Your task to perform on an android device: delete a single message in the gmail app Image 0: 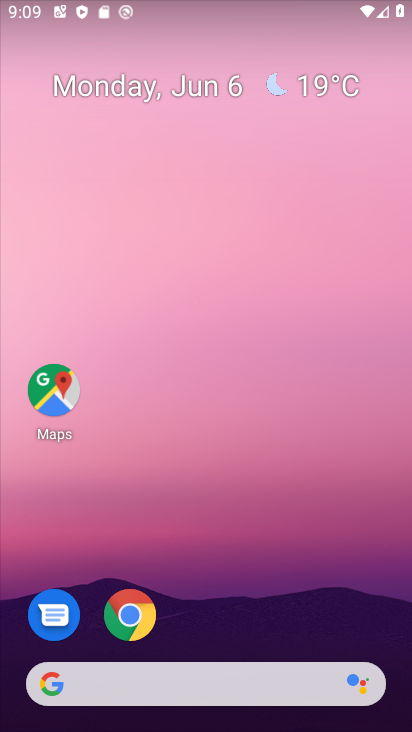
Step 0: drag from (188, 657) to (380, 29)
Your task to perform on an android device: delete a single message in the gmail app Image 1: 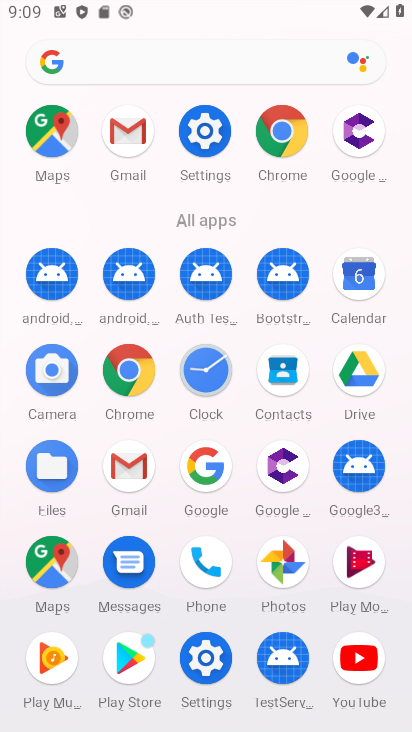
Step 1: click (157, 459)
Your task to perform on an android device: delete a single message in the gmail app Image 2: 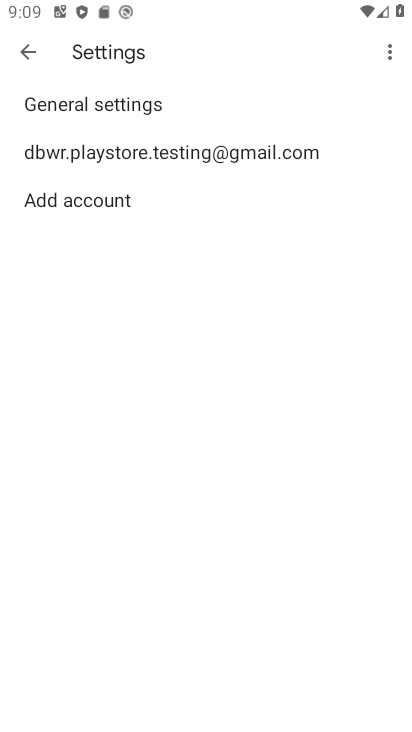
Step 2: click (23, 44)
Your task to perform on an android device: delete a single message in the gmail app Image 3: 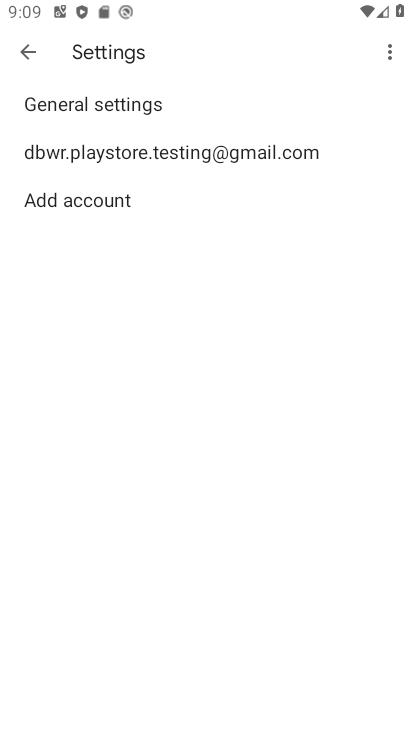
Step 3: click (23, 44)
Your task to perform on an android device: delete a single message in the gmail app Image 4: 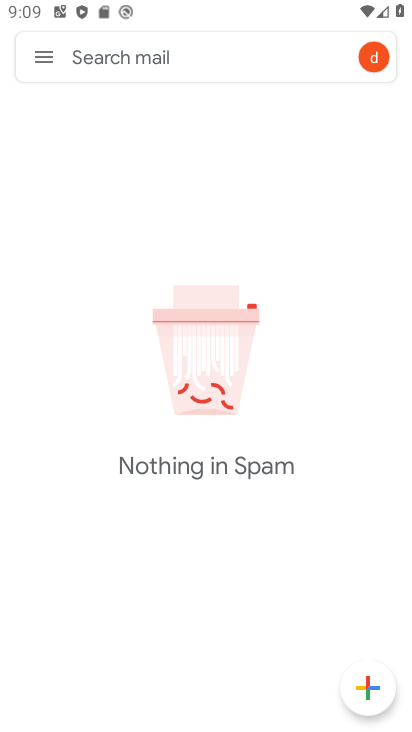
Step 4: task complete